Your task to perform on an android device: Go to Amazon Image 0: 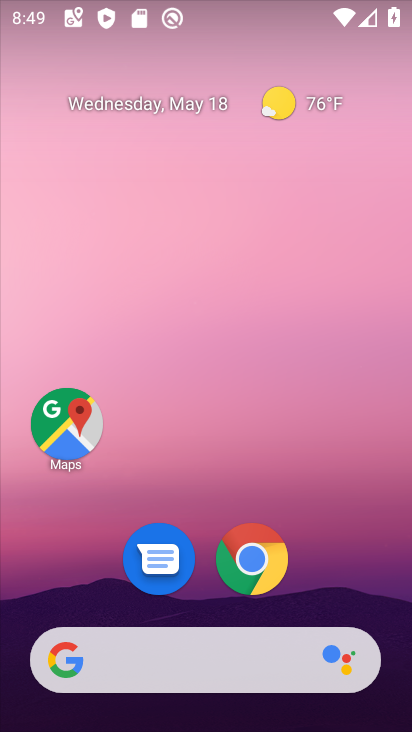
Step 0: drag from (348, 554) to (342, 463)
Your task to perform on an android device: Go to Amazon Image 1: 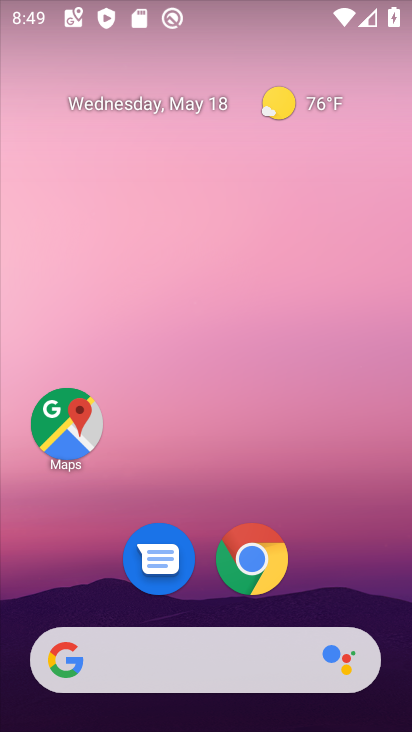
Step 1: click (247, 560)
Your task to perform on an android device: Go to Amazon Image 2: 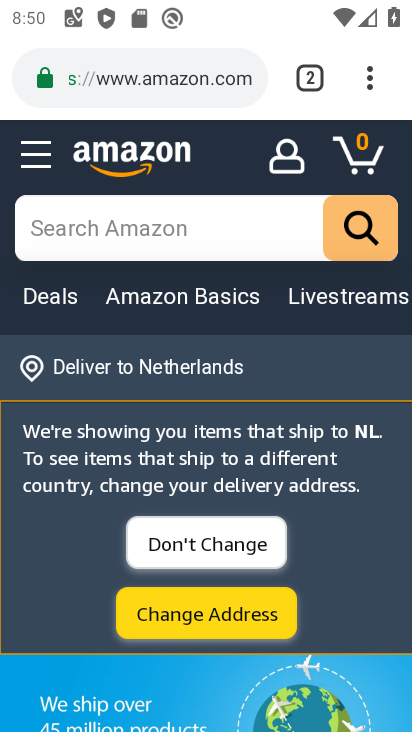
Step 2: task complete